Your task to perform on an android device: Turn on the flashlight Image 0: 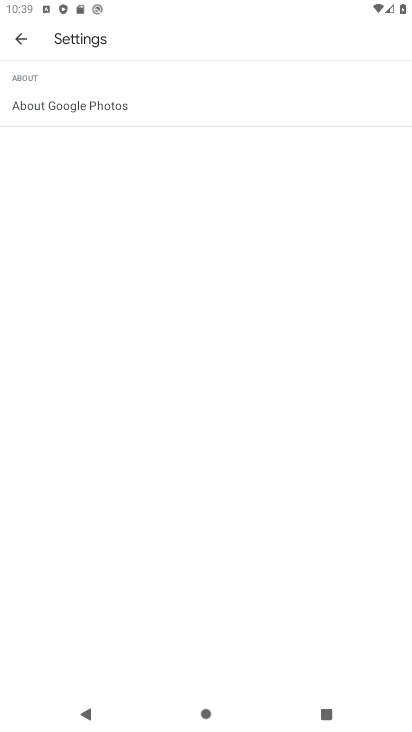
Step 0: task complete